Your task to perform on an android device: Turn off the flashlight Image 0: 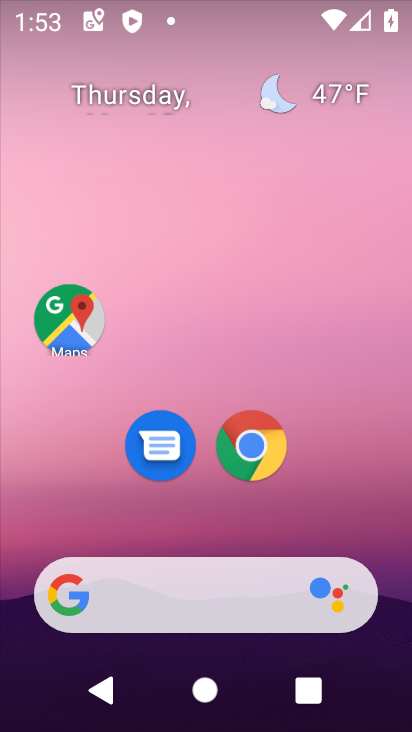
Step 0: drag from (222, 532) to (204, 259)
Your task to perform on an android device: Turn off the flashlight Image 1: 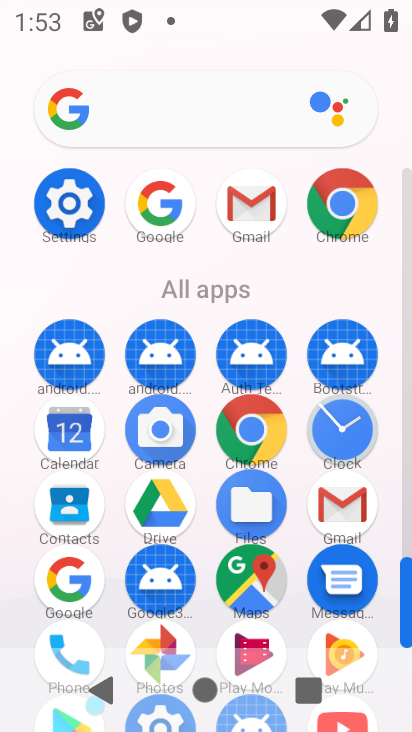
Step 1: click (96, 227)
Your task to perform on an android device: Turn off the flashlight Image 2: 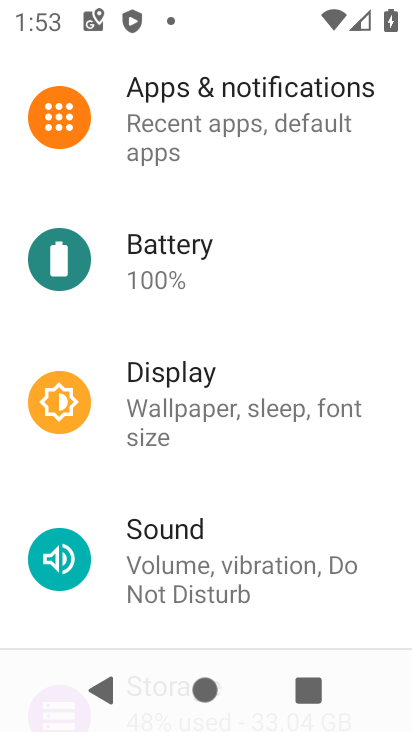
Step 2: drag from (202, 499) to (223, 211)
Your task to perform on an android device: Turn off the flashlight Image 3: 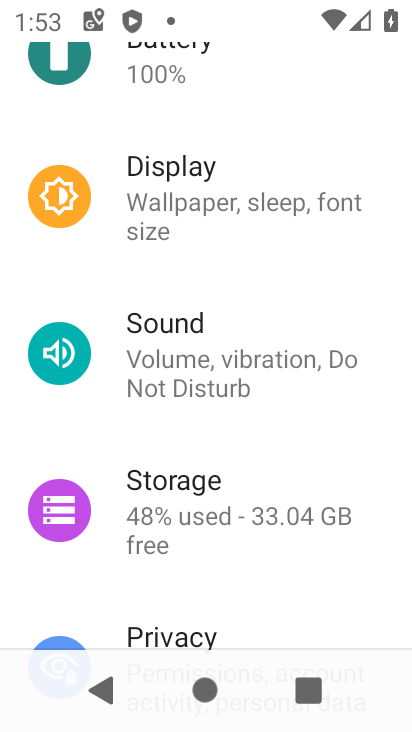
Step 3: drag from (257, 214) to (264, 443)
Your task to perform on an android device: Turn off the flashlight Image 4: 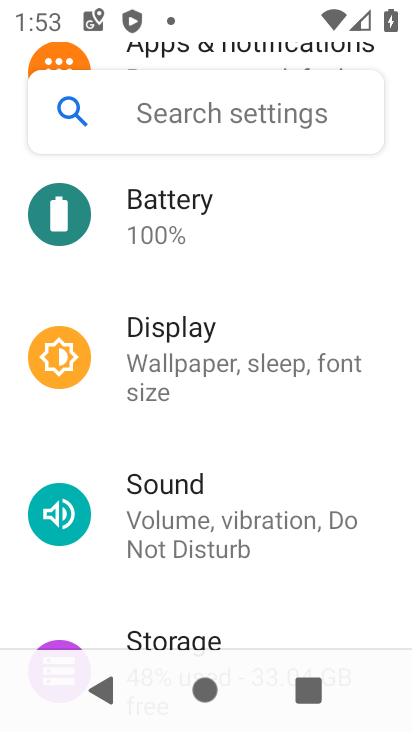
Step 4: drag from (200, 275) to (237, 503)
Your task to perform on an android device: Turn off the flashlight Image 5: 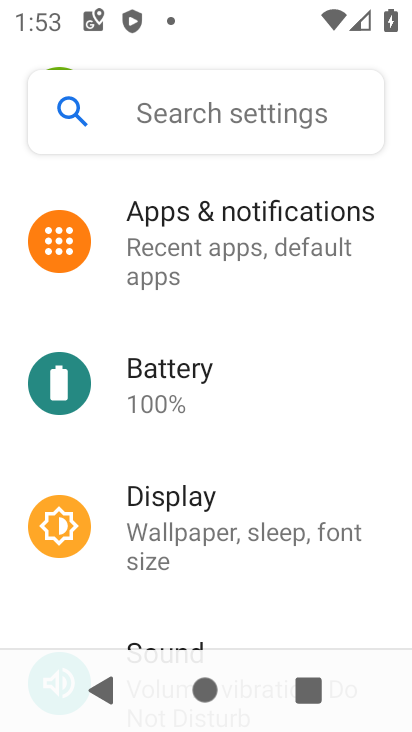
Step 5: click (223, 509)
Your task to perform on an android device: Turn off the flashlight Image 6: 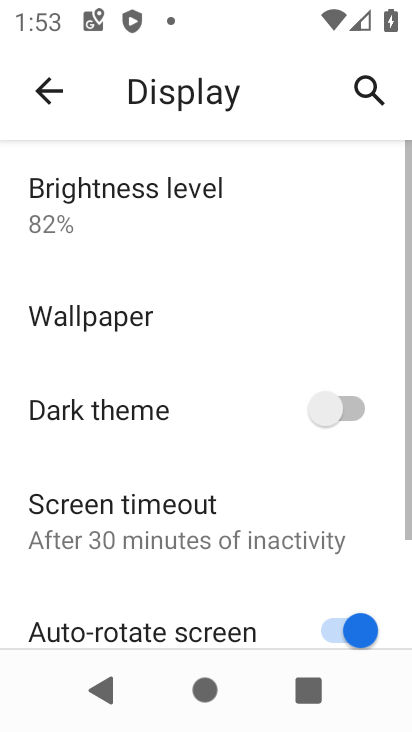
Step 6: task complete